Your task to perform on an android device: open chrome and create a bookmark for the current page Image 0: 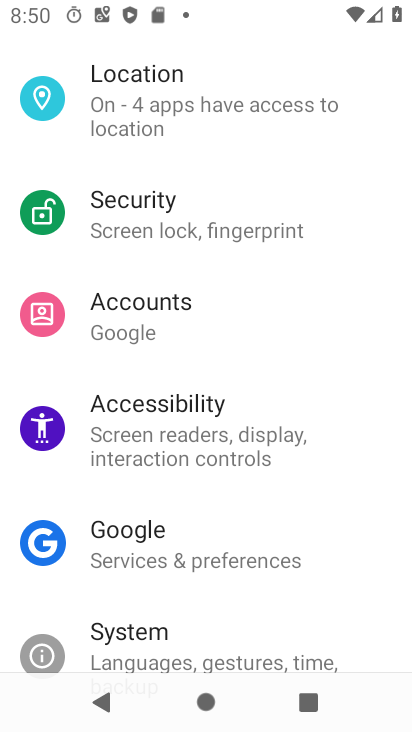
Step 0: press home button
Your task to perform on an android device: open chrome and create a bookmark for the current page Image 1: 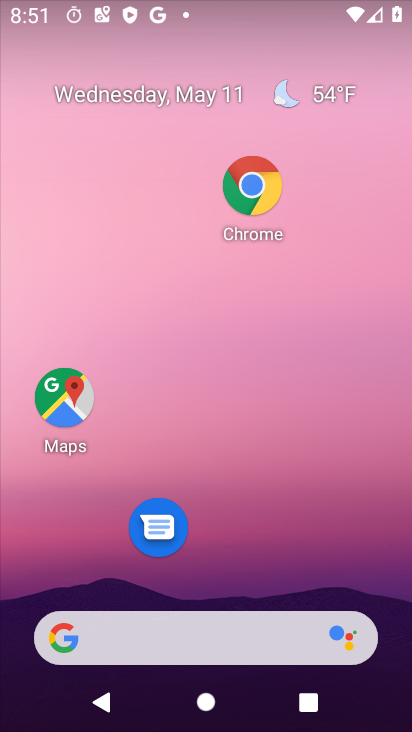
Step 1: click (251, 186)
Your task to perform on an android device: open chrome and create a bookmark for the current page Image 2: 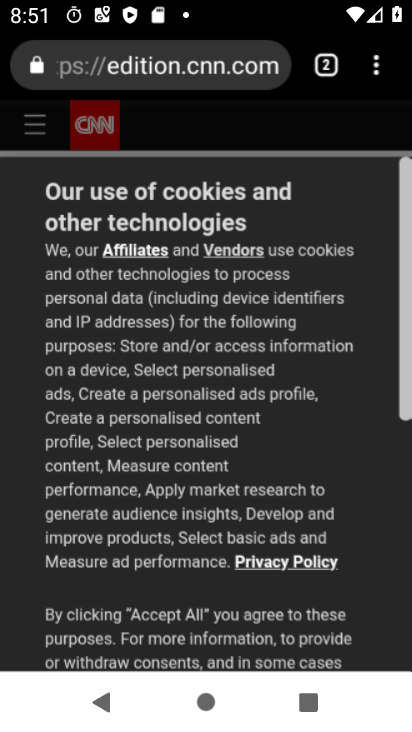
Step 2: click (368, 68)
Your task to perform on an android device: open chrome and create a bookmark for the current page Image 3: 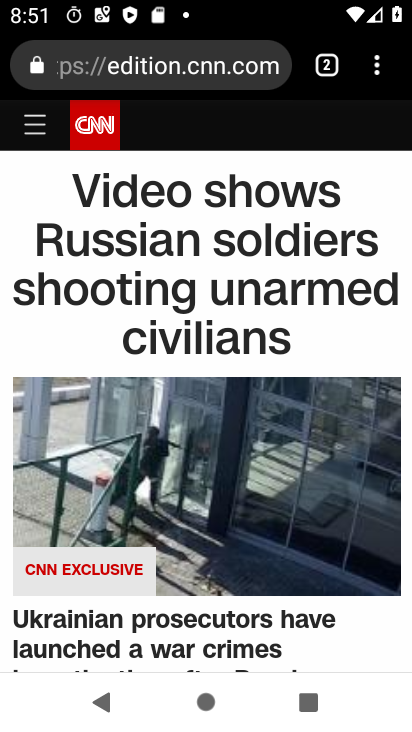
Step 3: click (367, 70)
Your task to perform on an android device: open chrome and create a bookmark for the current page Image 4: 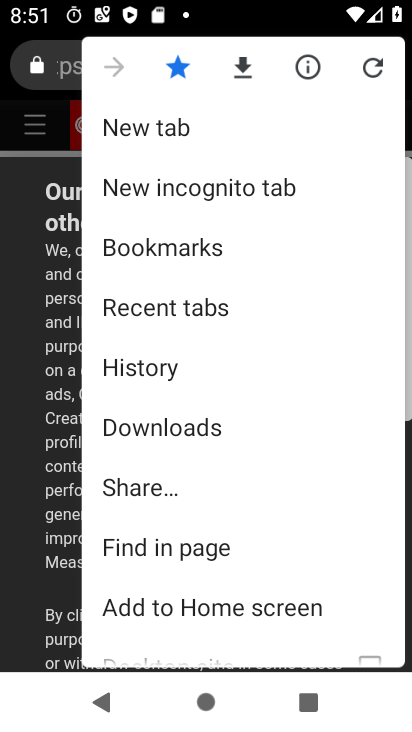
Step 4: task complete